Your task to perform on an android device: turn off improve location accuracy Image 0: 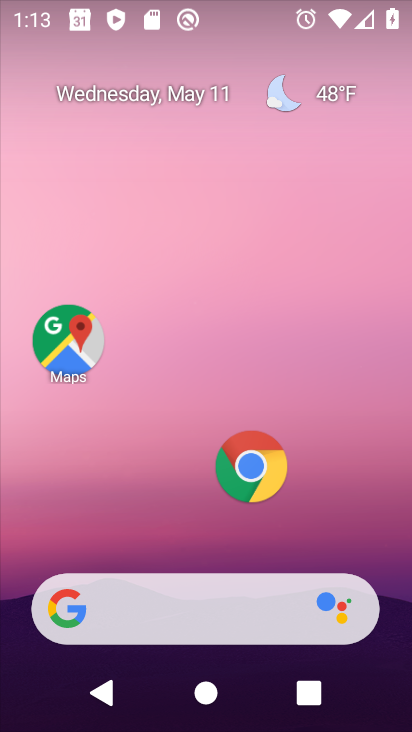
Step 0: drag from (170, 565) to (319, 17)
Your task to perform on an android device: turn off improve location accuracy Image 1: 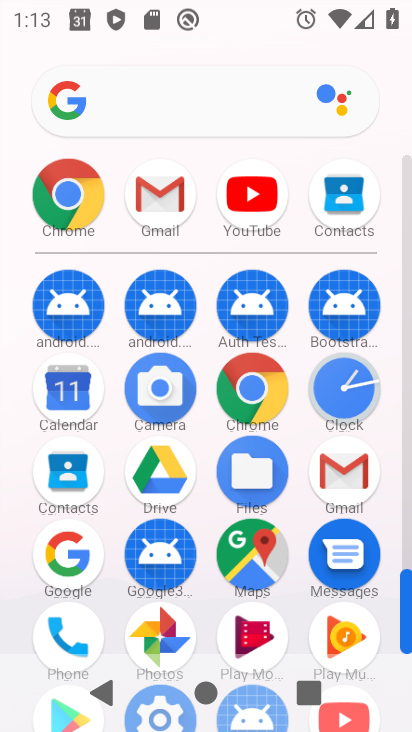
Step 1: drag from (181, 534) to (259, 172)
Your task to perform on an android device: turn off improve location accuracy Image 2: 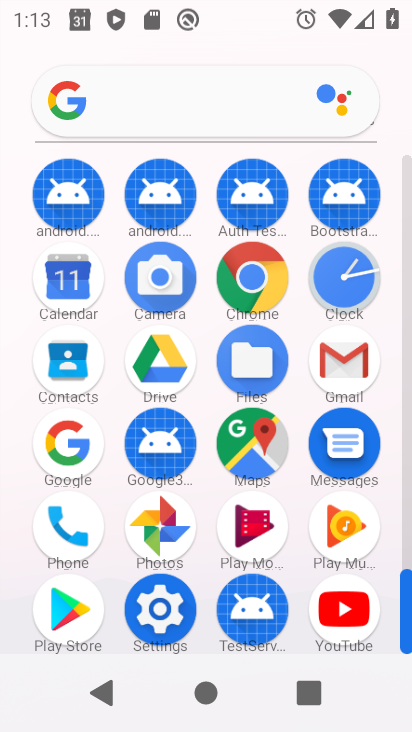
Step 2: click (165, 590)
Your task to perform on an android device: turn off improve location accuracy Image 3: 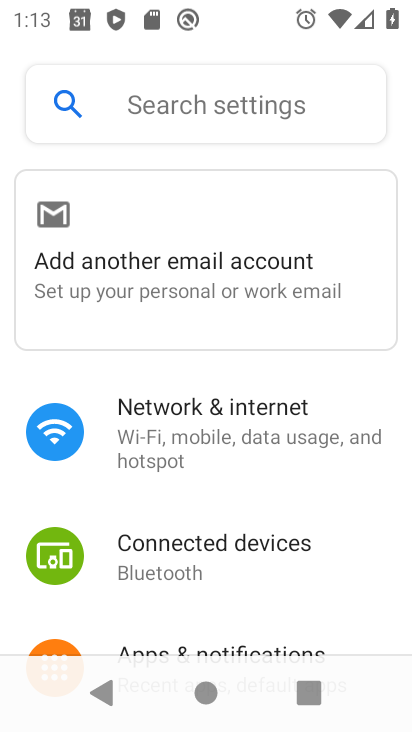
Step 3: drag from (243, 589) to (339, 195)
Your task to perform on an android device: turn off improve location accuracy Image 4: 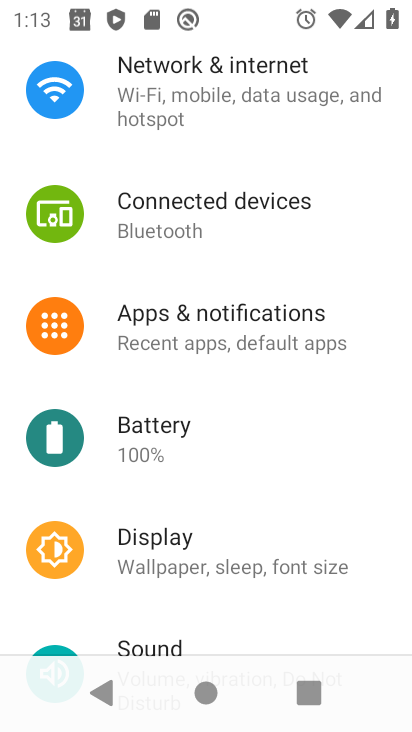
Step 4: drag from (186, 603) to (304, 166)
Your task to perform on an android device: turn off improve location accuracy Image 5: 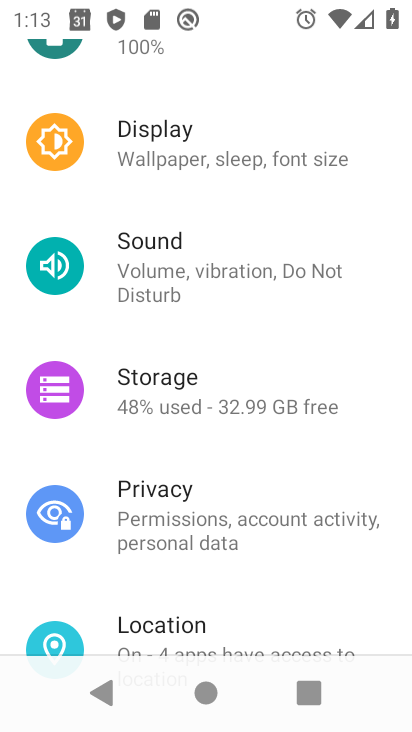
Step 5: drag from (215, 450) to (270, 202)
Your task to perform on an android device: turn off improve location accuracy Image 6: 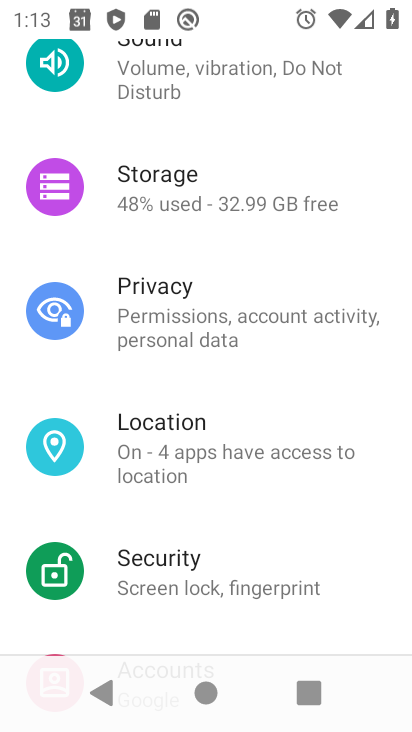
Step 6: click (125, 458)
Your task to perform on an android device: turn off improve location accuracy Image 7: 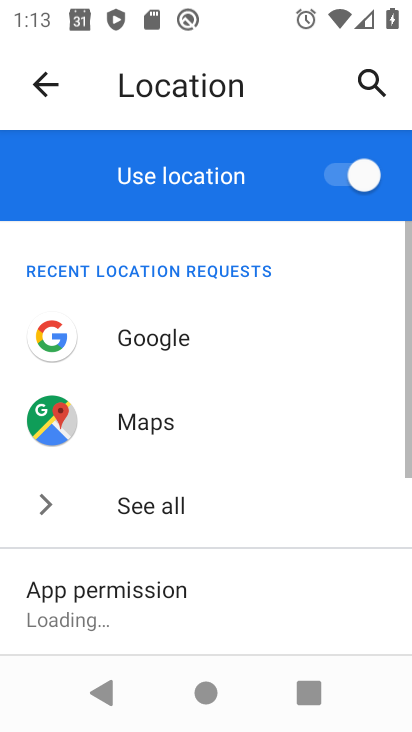
Step 7: drag from (166, 540) to (269, 93)
Your task to perform on an android device: turn off improve location accuracy Image 8: 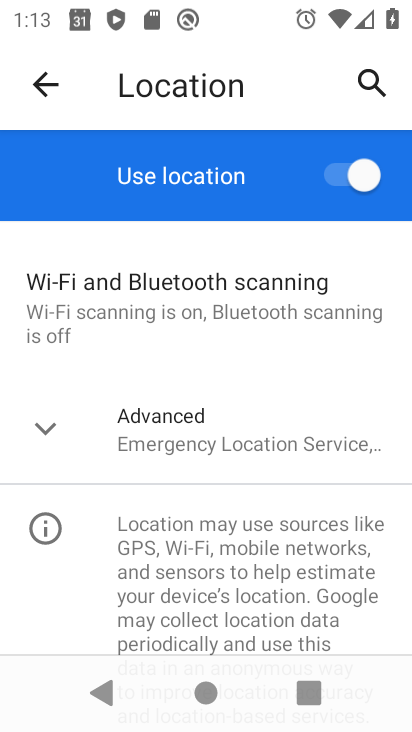
Step 8: click (197, 426)
Your task to perform on an android device: turn off improve location accuracy Image 9: 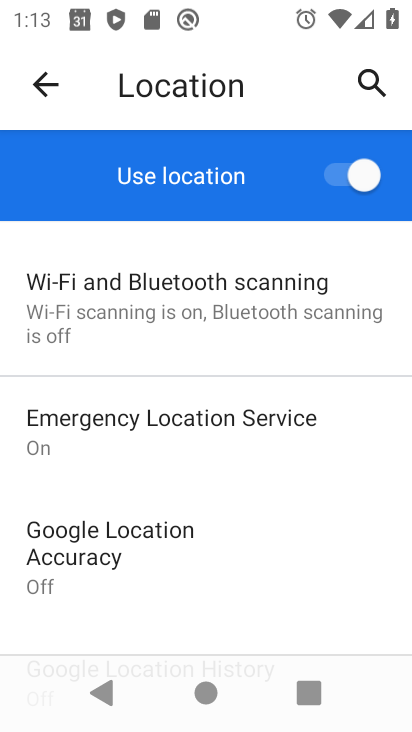
Step 9: click (109, 544)
Your task to perform on an android device: turn off improve location accuracy Image 10: 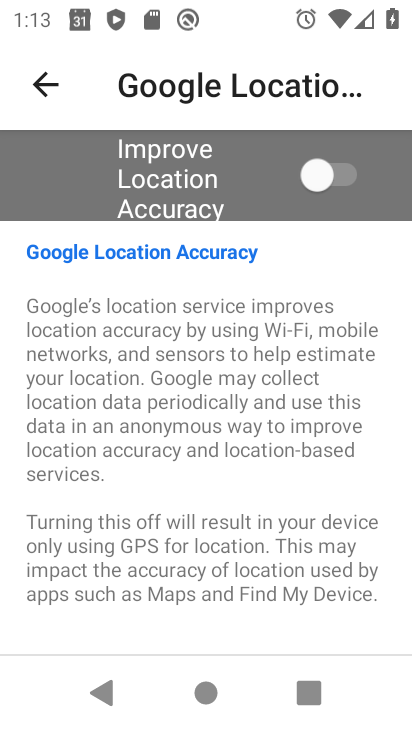
Step 10: task complete